Your task to perform on an android device: Open ESPN.com Image 0: 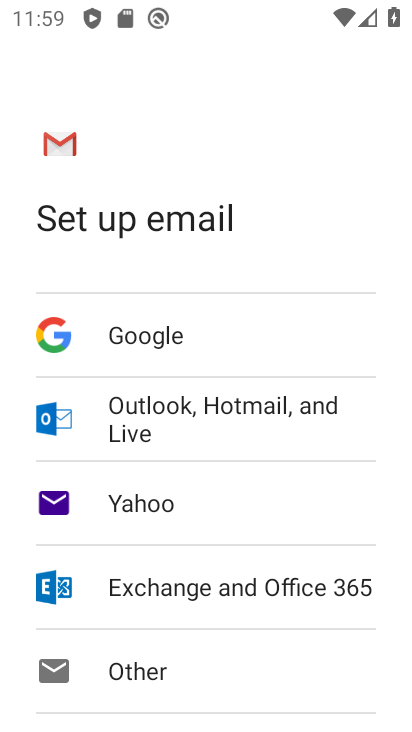
Step 0: press home button
Your task to perform on an android device: Open ESPN.com Image 1: 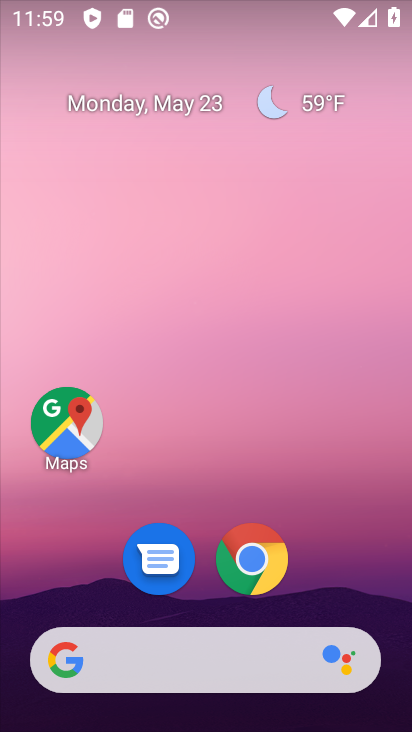
Step 1: drag from (380, 517) to (338, 115)
Your task to perform on an android device: Open ESPN.com Image 2: 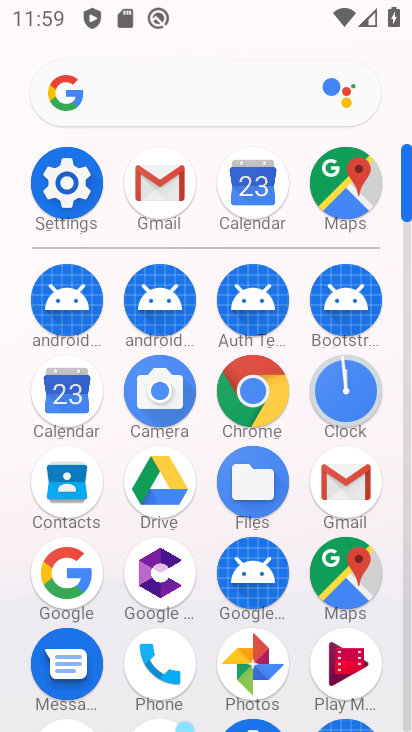
Step 2: click (256, 391)
Your task to perform on an android device: Open ESPN.com Image 3: 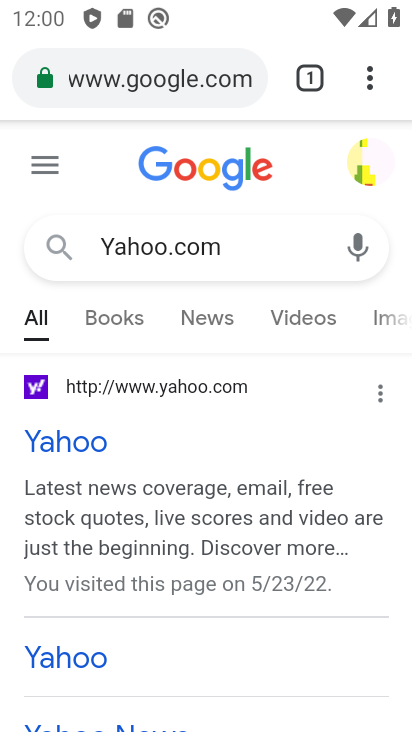
Step 3: click (254, 79)
Your task to perform on an android device: Open ESPN.com Image 4: 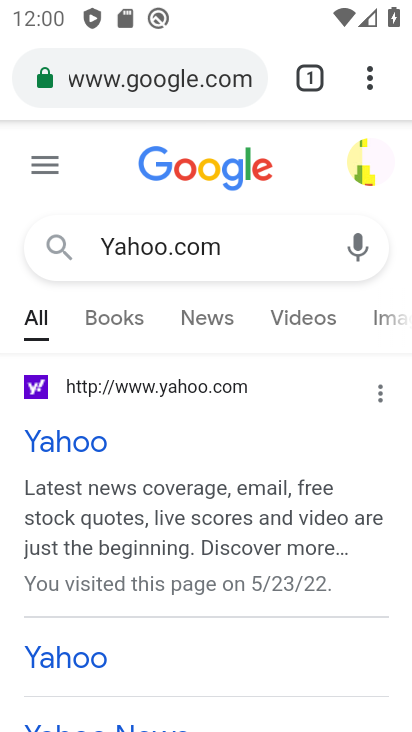
Step 4: click (254, 77)
Your task to perform on an android device: Open ESPN.com Image 5: 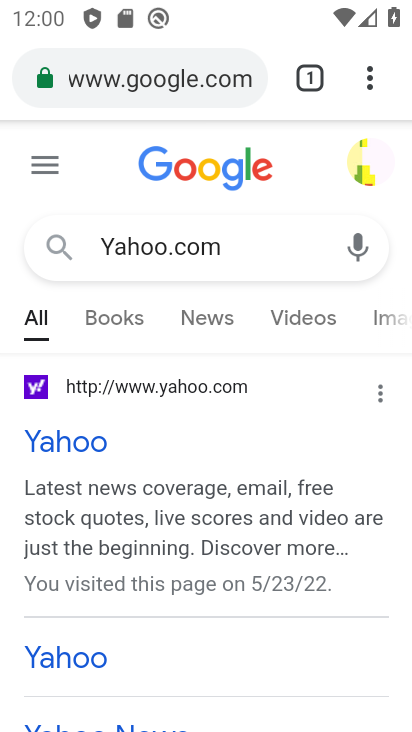
Step 5: click (250, 81)
Your task to perform on an android device: Open ESPN.com Image 6: 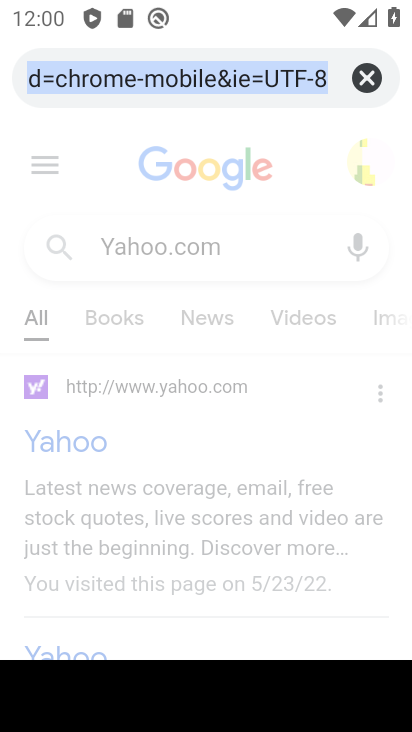
Step 6: click (369, 76)
Your task to perform on an android device: Open ESPN.com Image 7: 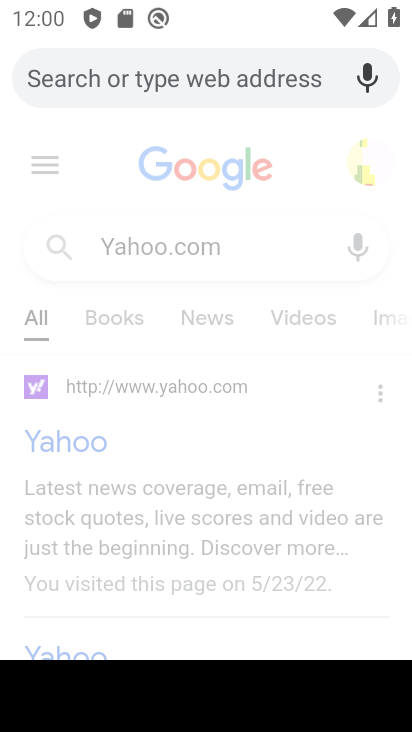
Step 7: type "ESPN.com"
Your task to perform on an android device: Open ESPN.com Image 8: 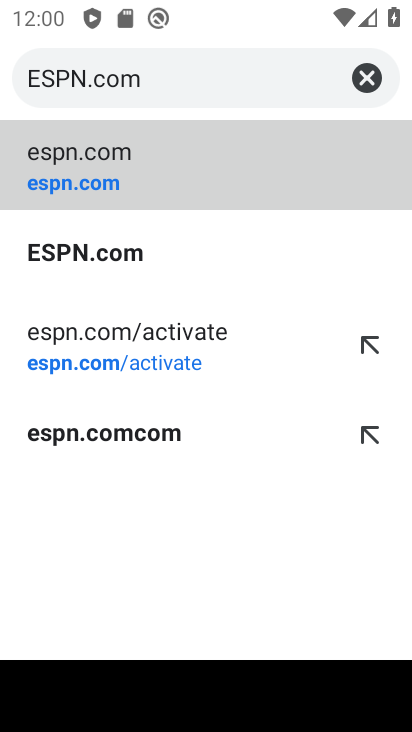
Step 8: click (98, 249)
Your task to perform on an android device: Open ESPN.com Image 9: 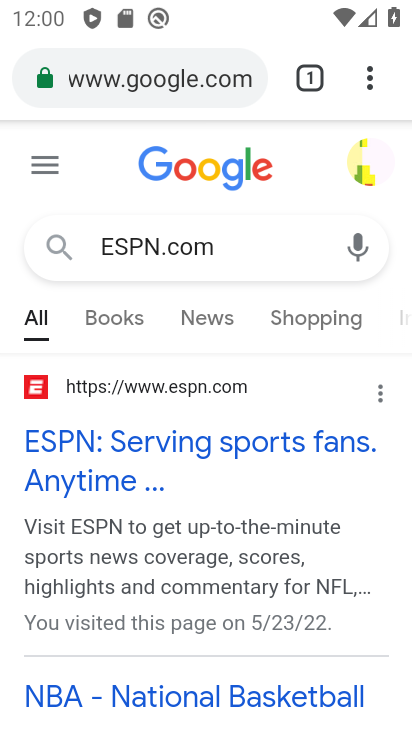
Step 9: task complete